Your task to perform on an android device: turn on the 24-hour format for clock Image 0: 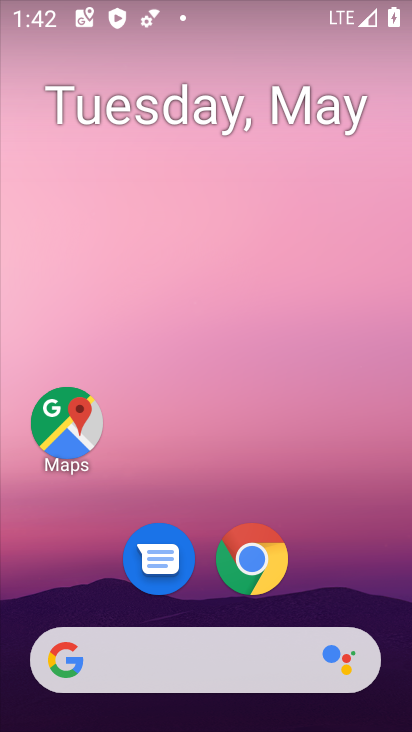
Step 0: drag from (330, 607) to (267, 39)
Your task to perform on an android device: turn on the 24-hour format for clock Image 1: 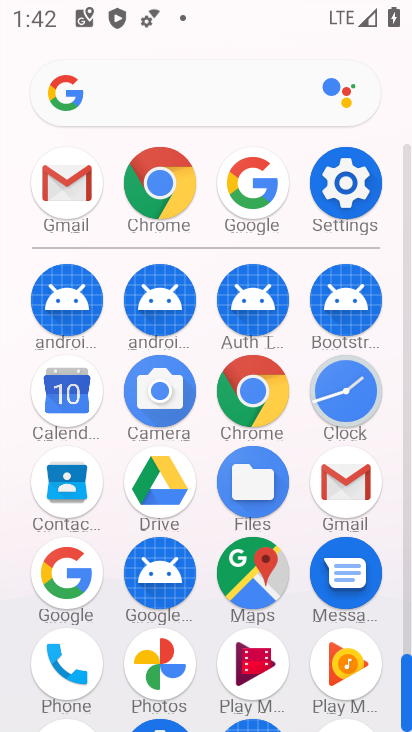
Step 1: click (349, 385)
Your task to perform on an android device: turn on the 24-hour format for clock Image 2: 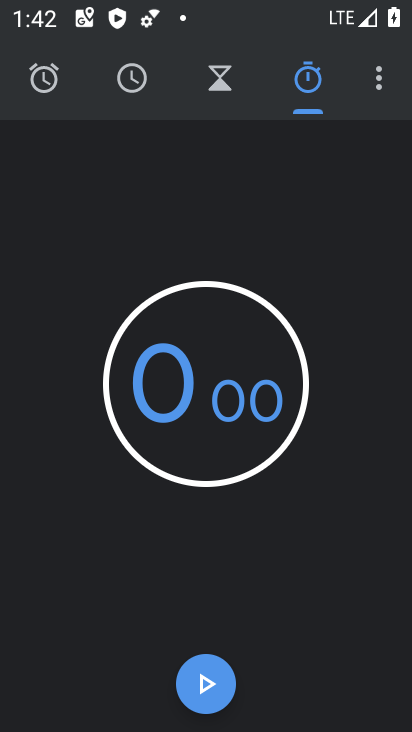
Step 2: click (387, 75)
Your task to perform on an android device: turn on the 24-hour format for clock Image 3: 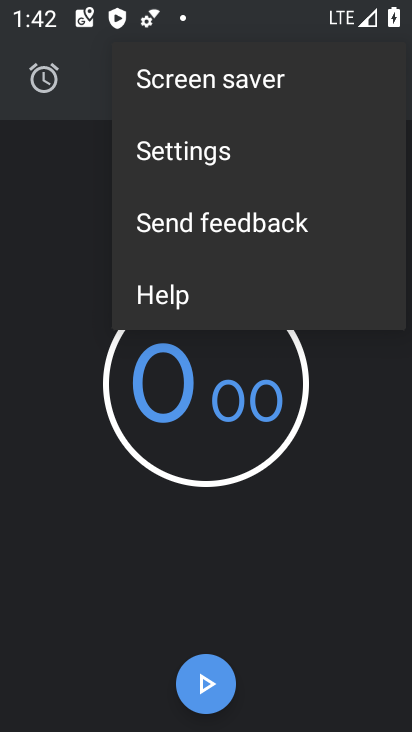
Step 3: click (243, 151)
Your task to perform on an android device: turn on the 24-hour format for clock Image 4: 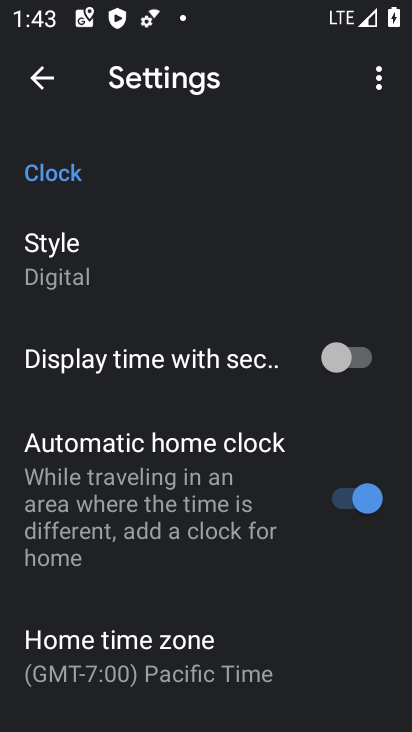
Step 4: drag from (205, 633) to (169, 263)
Your task to perform on an android device: turn on the 24-hour format for clock Image 5: 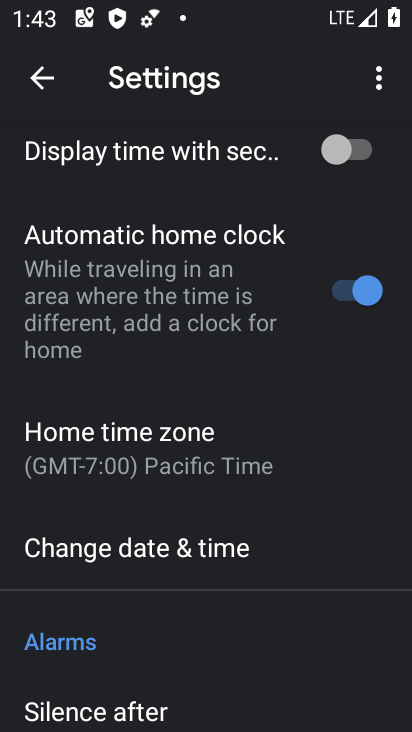
Step 5: click (170, 527)
Your task to perform on an android device: turn on the 24-hour format for clock Image 6: 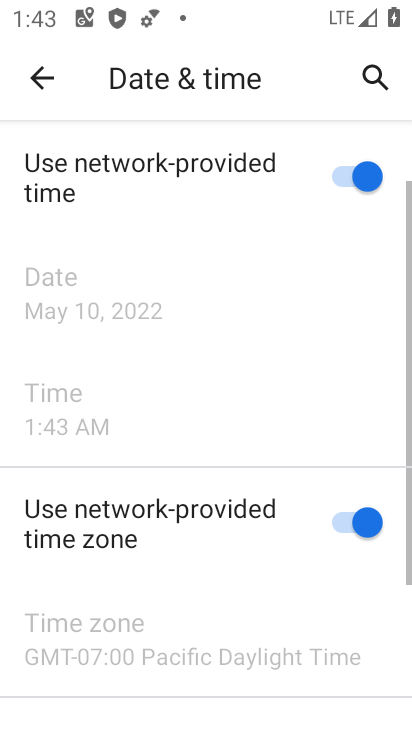
Step 6: drag from (271, 602) to (253, 149)
Your task to perform on an android device: turn on the 24-hour format for clock Image 7: 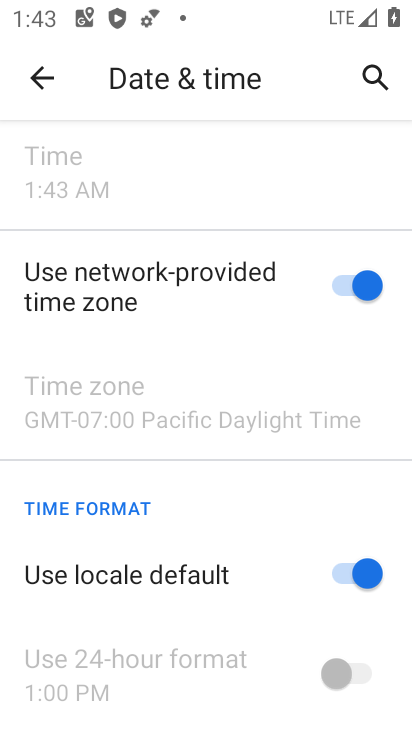
Step 7: click (331, 683)
Your task to perform on an android device: turn on the 24-hour format for clock Image 8: 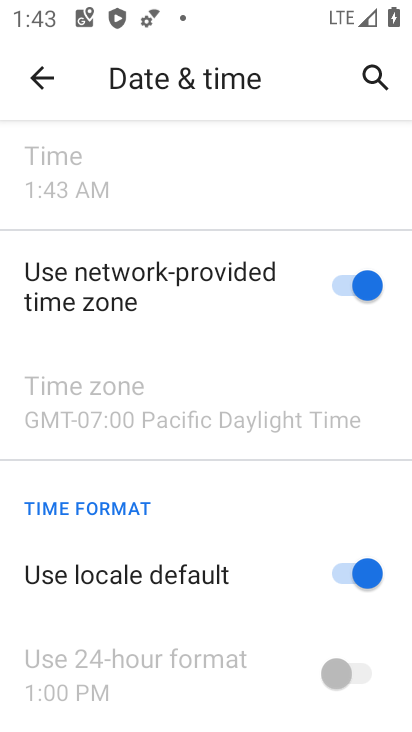
Step 8: click (353, 549)
Your task to perform on an android device: turn on the 24-hour format for clock Image 9: 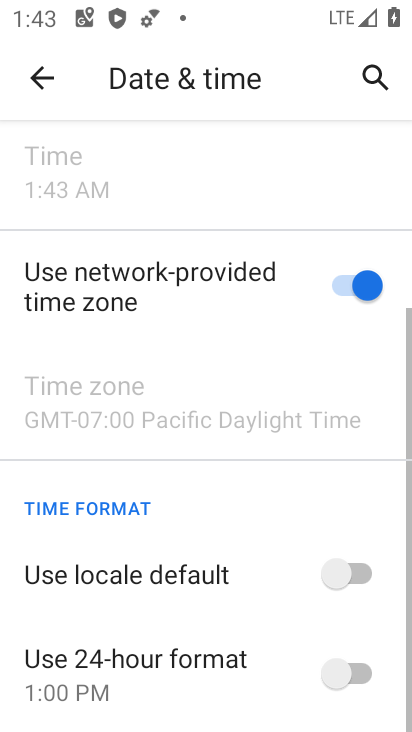
Step 9: click (339, 674)
Your task to perform on an android device: turn on the 24-hour format for clock Image 10: 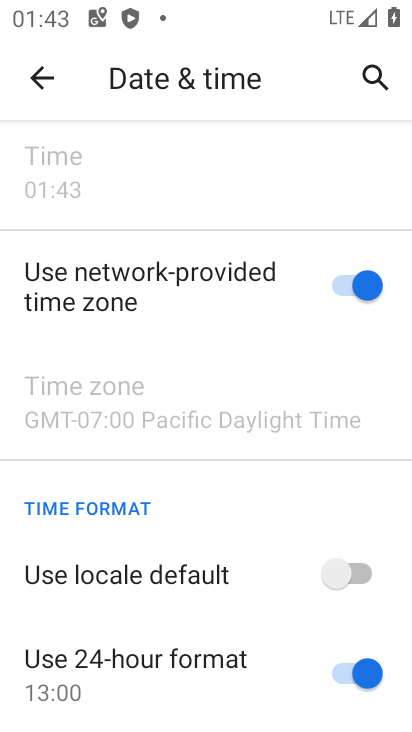
Step 10: task complete